Your task to perform on an android device: Open calendar and show me the first week of next month Image 0: 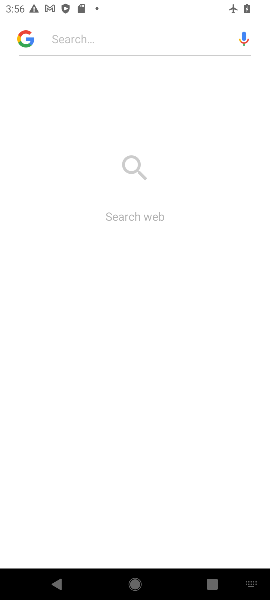
Step 0: press home button
Your task to perform on an android device: Open calendar and show me the first week of next month Image 1: 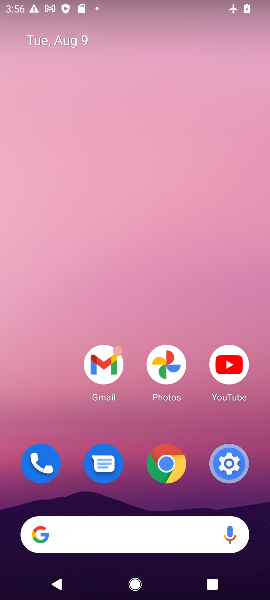
Step 1: drag from (148, 510) to (110, 190)
Your task to perform on an android device: Open calendar and show me the first week of next month Image 2: 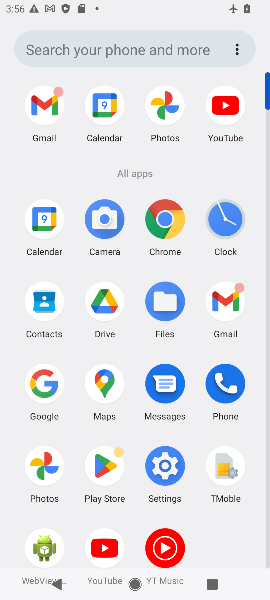
Step 2: click (102, 111)
Your task to perform on an android device: Open calendar and show me the first week of next month Image 3: 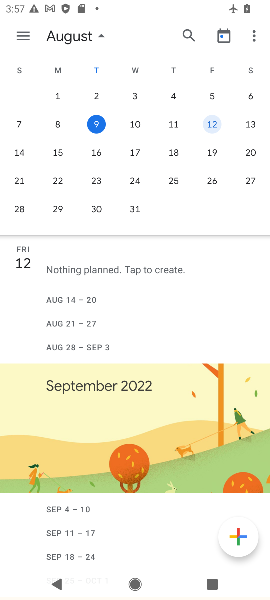
Step 3: drag from (260, 164) to (9, 212)
Your task to perform on an android device: Open calendar and show me the first week of next month Image 4: 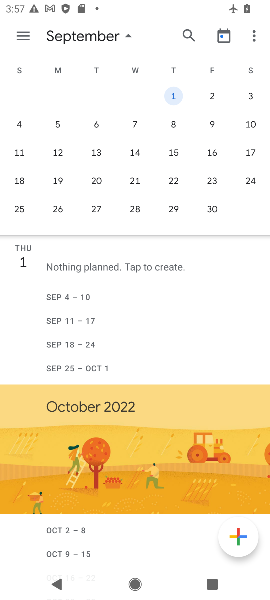
Step 4: click (176, 96)
Your task to perform on an android device: Open calendar and show me the first week of next month Image 5: 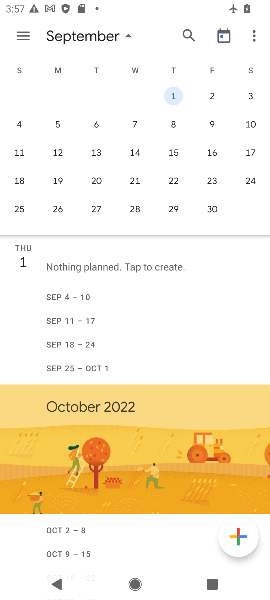
Step 5: task complete